Your task to perform on an android device: move a message to another label in the gmail app Image 0: 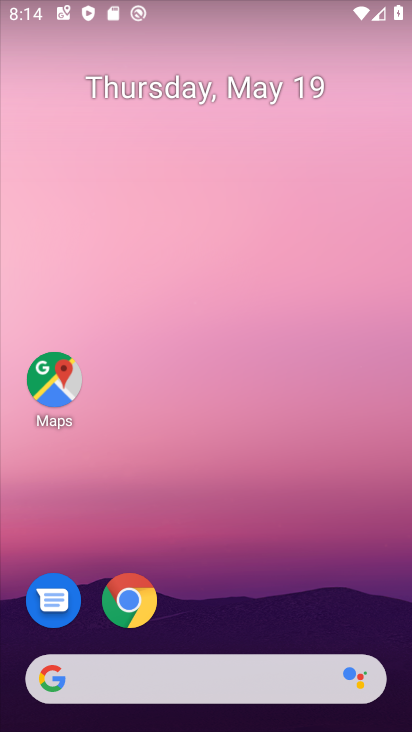
Step 0: drag from (217, 621) to (261, 6)
Your task to perform on an android device: move a message to another label in the gmail app Image 1: 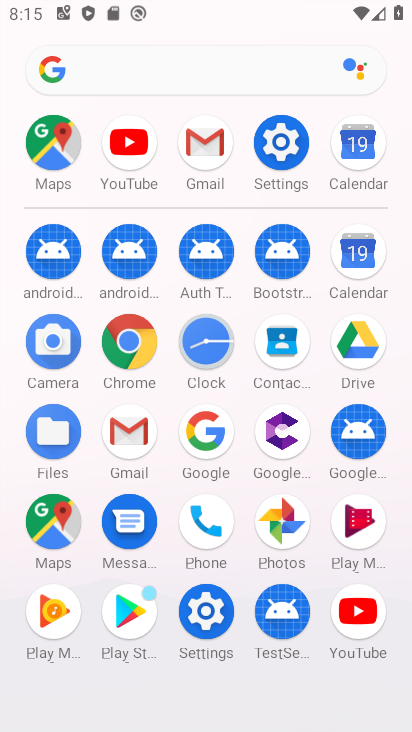
Step 1: click (203, 146)
Your task to perform on an android device: move a message to another label in the gmail app Image 2: 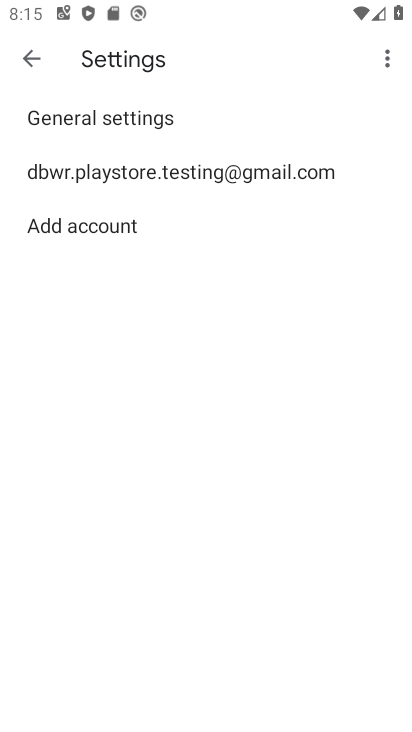
Step 2: click (30, 57)
Your task to perform on an android device: move a message to another label in the gmail app Image 3: 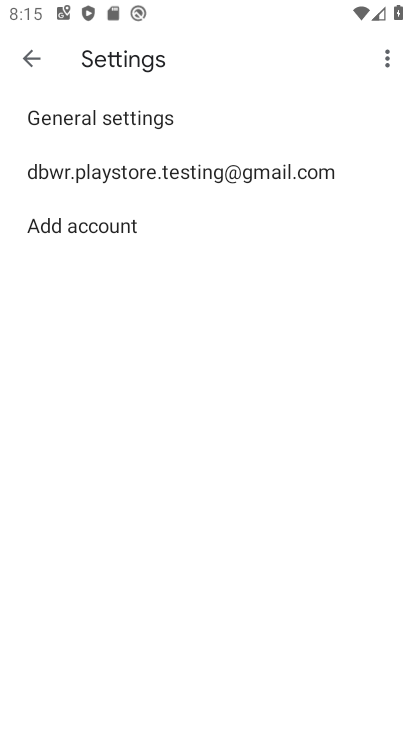
Step 3: click (30, 57)
Your task to perform on an android device: move a message to another label in the gmail app Image 4: 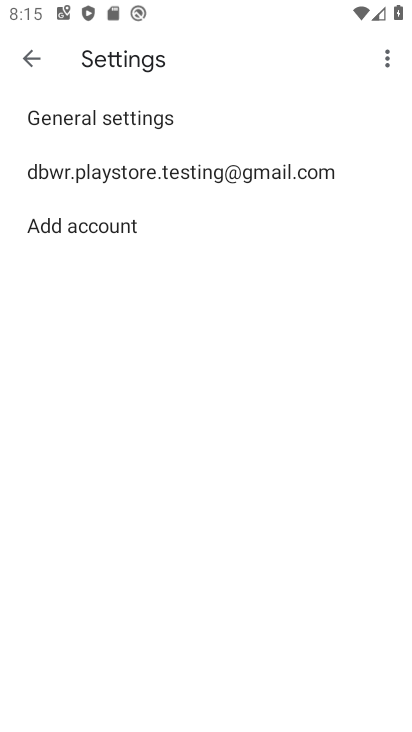
Step 4: click (25, 59)
Your task to perform on an android device: move a message to another label in the gmail app Image 5: 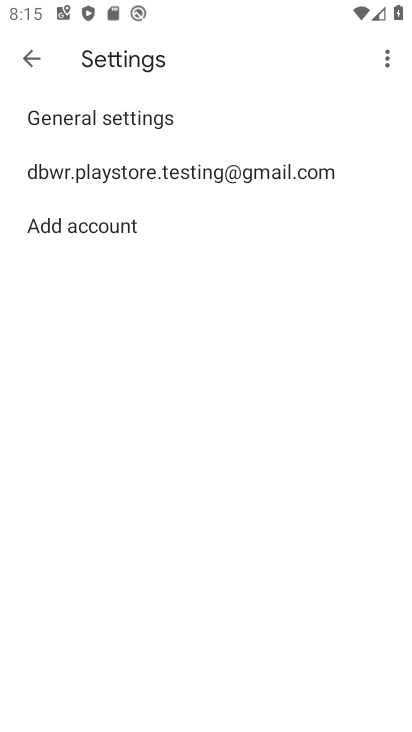
Step 5: click (25, 59)
Your task to perform on an android device: move a message to another label in the gmail app Image 6: 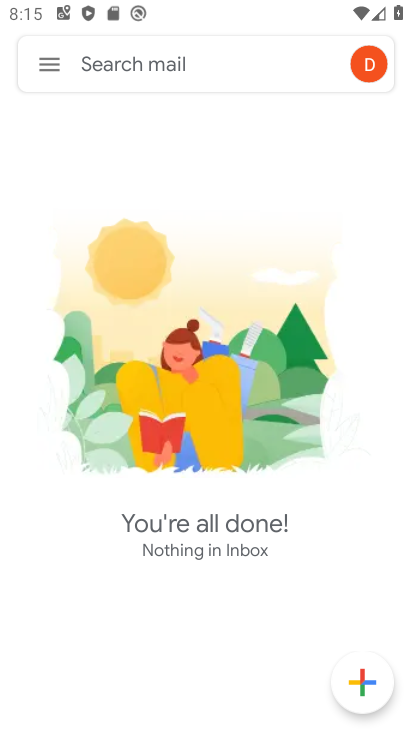
Step 6: click (38, 62)
Your task to perform on an android device: move a message to another label in the gmail app Image 7: 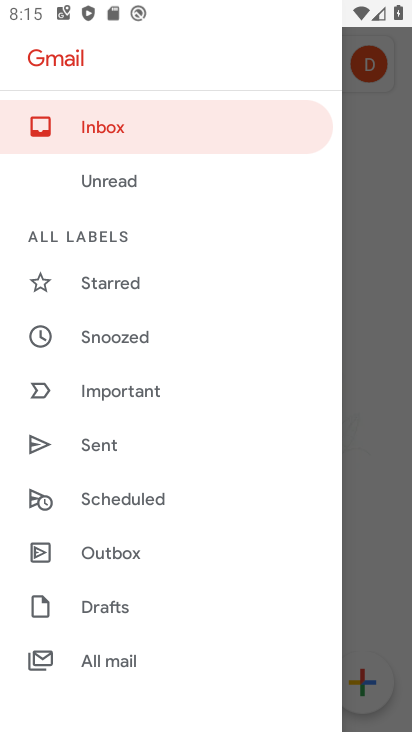
Step 7: click (100, 667)
Your task to perform on an android device: move a message to another label in the gmail app Image 8: 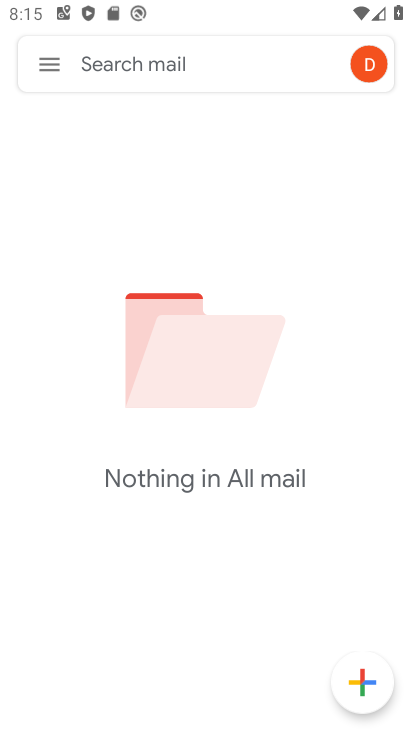
Step 8: task complete